Your task to perform on an android device: add a label to a message in the gmail app Image 0: 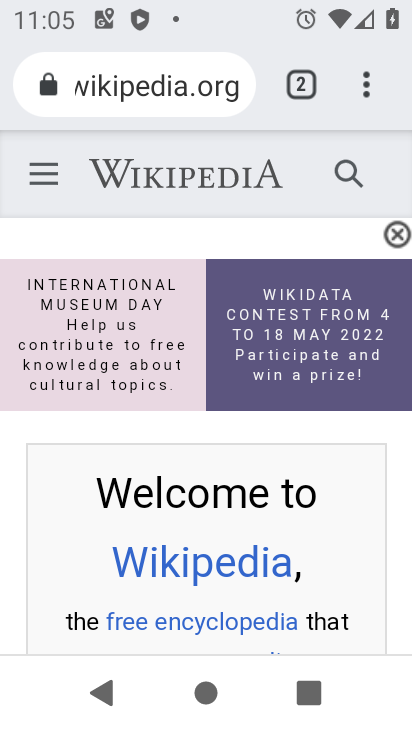
Step 0: press home button
Your task to perform on an android device: add a label to a message in the gmail app Image 1: 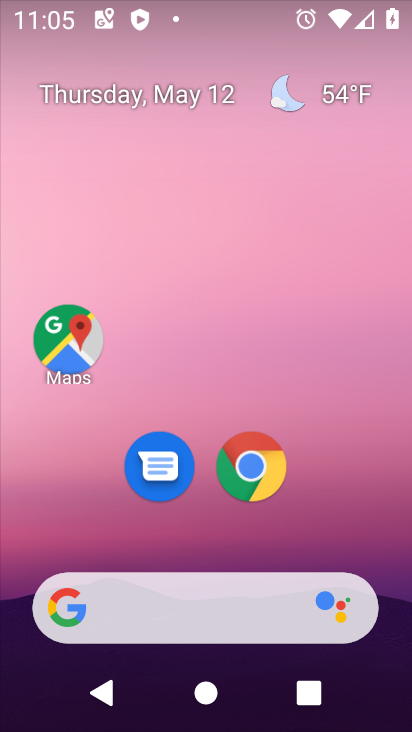
Step 1: drag from (343, 511) to (391, 180)
Your task to perform on an android device: add a label to a message in the gmail app Image 2: 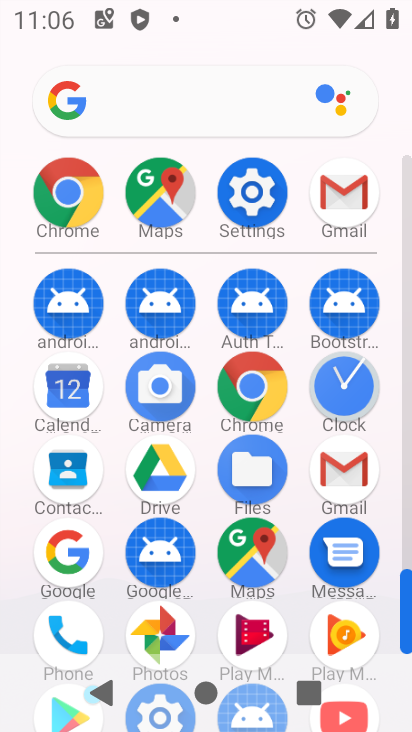
Step 2: click (370, 476)
Your task to perform on an android device: add a label to a message in the gmail app Image 3: 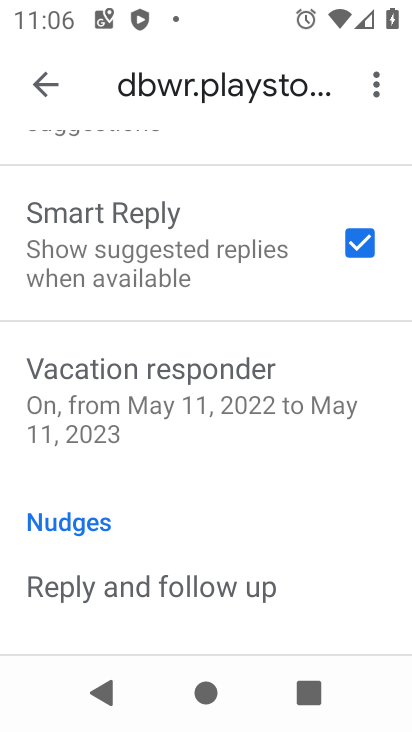
Step 3: drag from (322, 339) to (322, 570)
Your task to perform on an android device: add a label to a message in the gmail app Image 4: 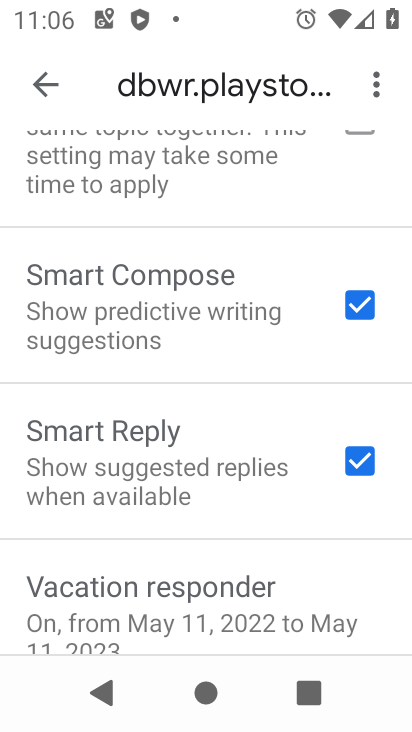
Step 4: drag from (253, 224) to (214, 554)
Your task to perform on an android device: add a label to a message in the gmail app Image 5: 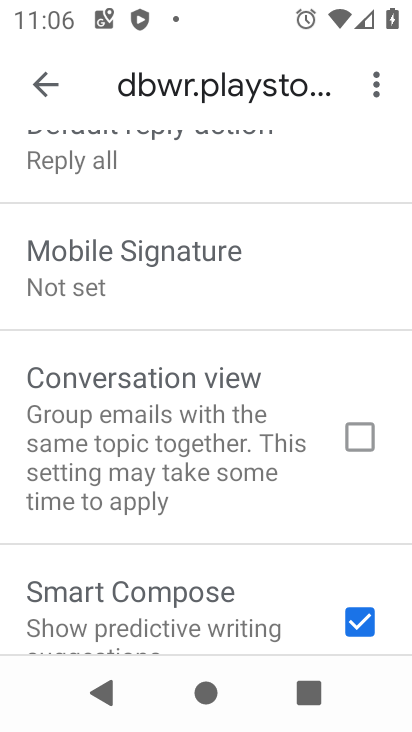
Step 5: drag from (204, 282) to (202, 597)
Your task to perform on an android device: add a label to a message in the gmail app Image 6: 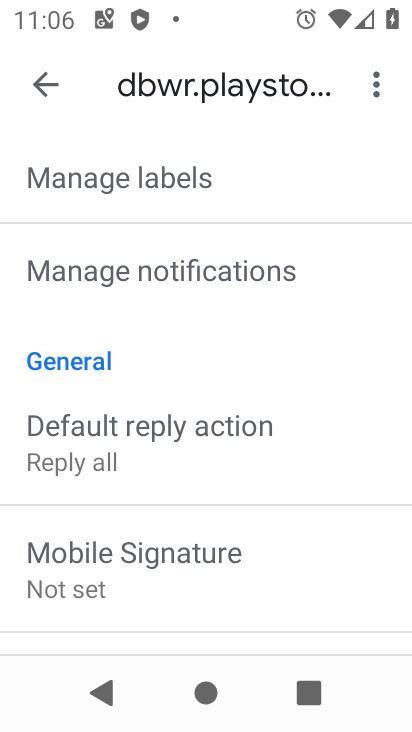
Step 6: drag from (244, 568) to (270, 263)
Your task to perform on an android device: add a label to a message in the gmail app Image 7: 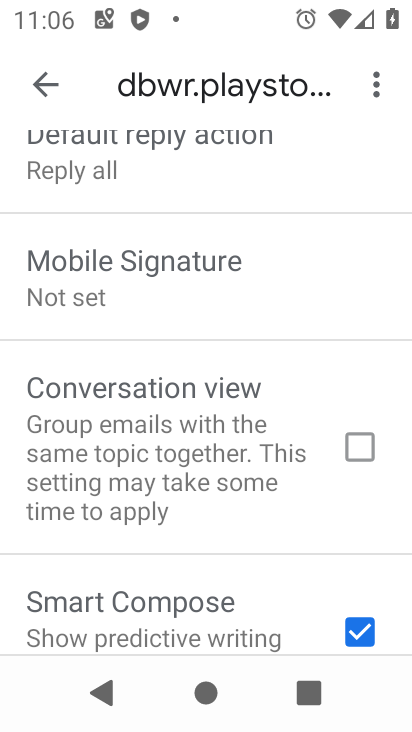
Step 7: click (30, 105)
Your task to perform on an android device: add a label to a message in the gmail app Image 8: 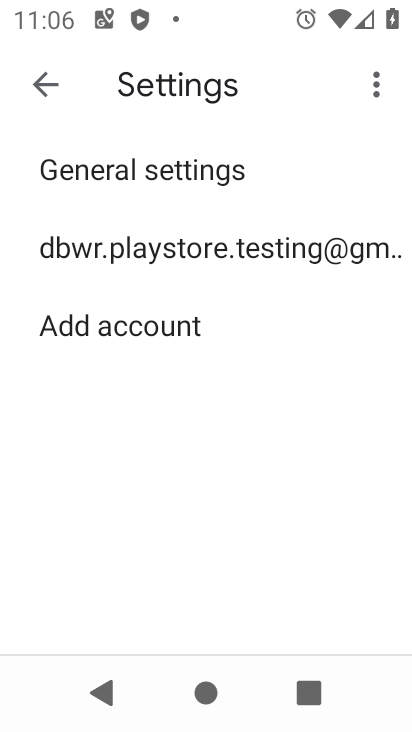
Step 8: click (30, 105)
Your task to perform on an android device: add a label to a message in the gmail app Image 9: 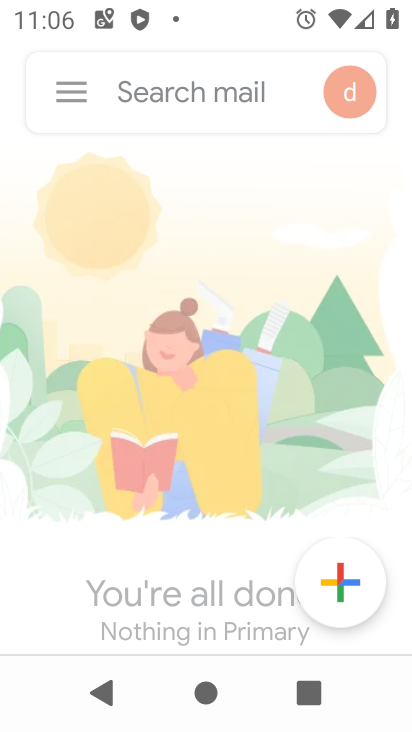
Step 9: click (100, 111)
Your task to perform on an android device: add a label to a message in the gmail app Image 10: 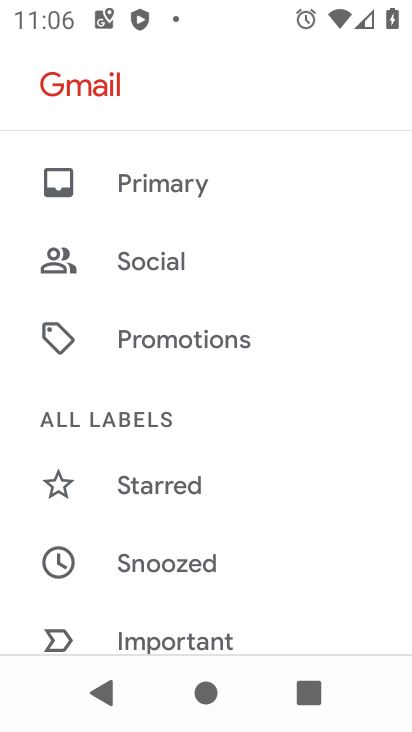
Step 10: drag from (235, 607) to (284, 142)
Your task to perform on an android device: add a label to a message in the gmail app Image 11: 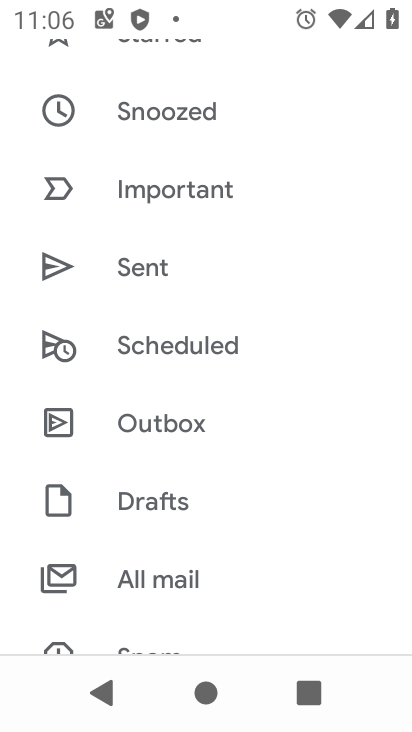
Step 11: click (201, 588)
Your task to perform on an android device: add a label to a message in the gmail app Image 12: 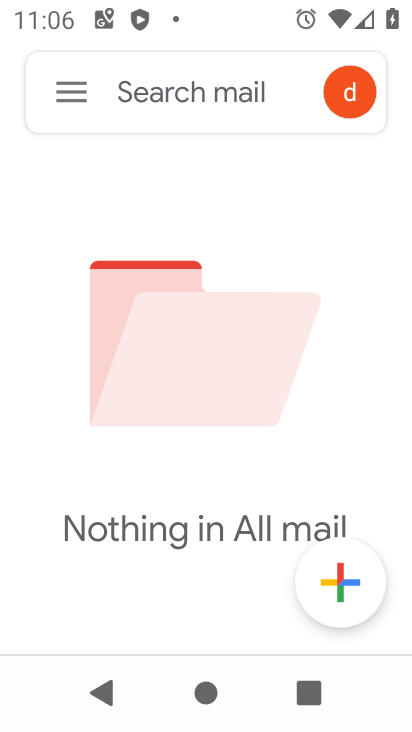
Step 12: task complete